Your task to perform on an android device: turn off picture-in-picture Image 0: 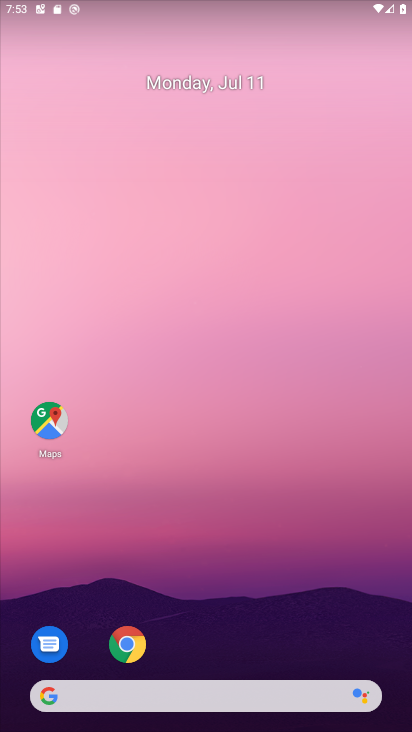
Step 0: drag from (272, 584) to (283, 269)
Your task to perform on an android device: turn off picture-in-picture Image 1: 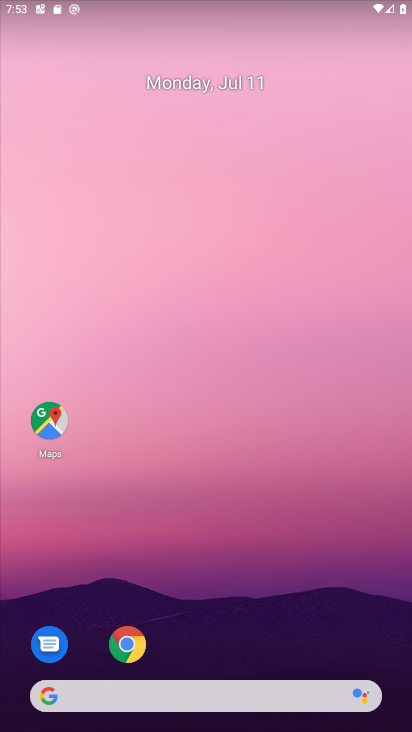
Step 1: drag from (268, 630) to (285, 533)
Your task to perform on an android device: turn off picture-in-picture Image 2: 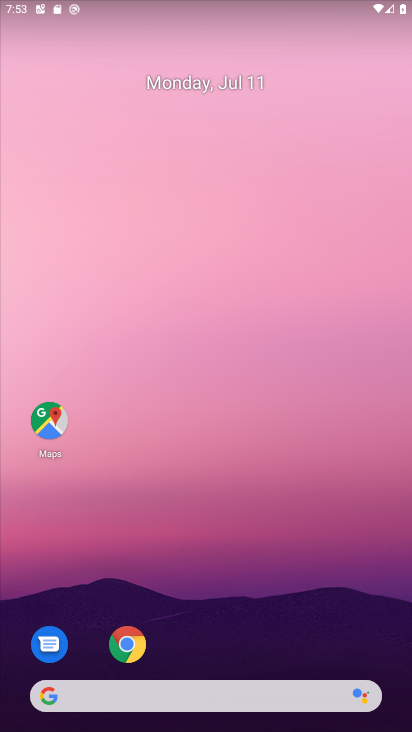
Step 2: drag from (215, 641) to (161, 72)
Your task to perform on an android device: turn off picture-in-picture Image 3: 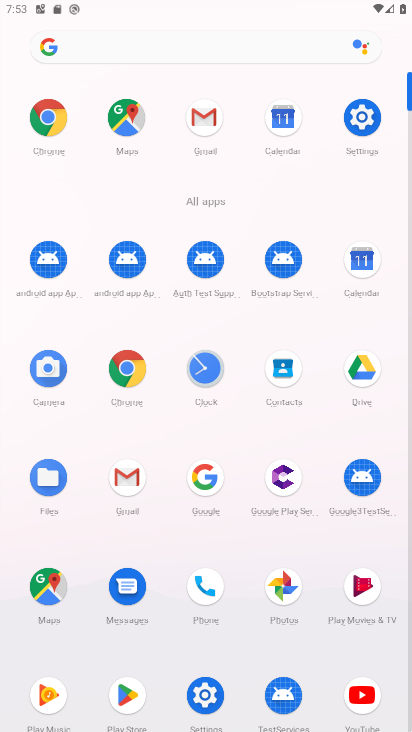
Step 3: click (369, 101)
Your task to perform on an android device: turn off picture-in-picture Image 4: 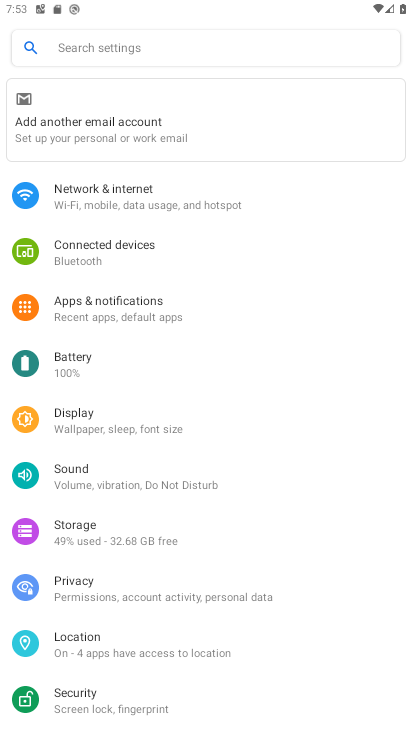
Step 4: click (76, 299)
Your task to perform on an android device: turn off picture-in-picture Image 5: 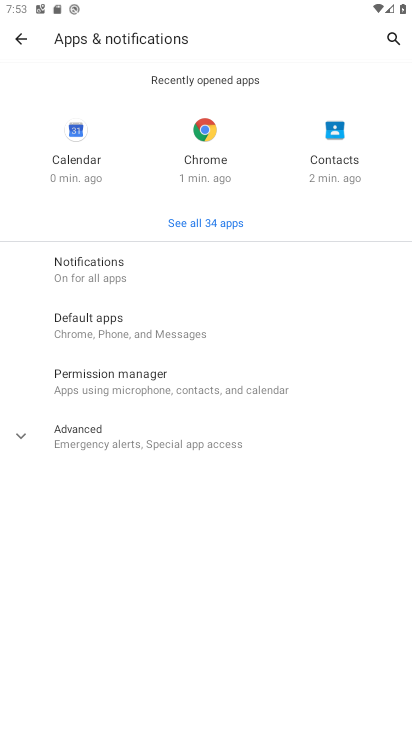
Step 5: click (127, 442)
Your task to perform on an android device: turn off picture-in-picture Image 6: 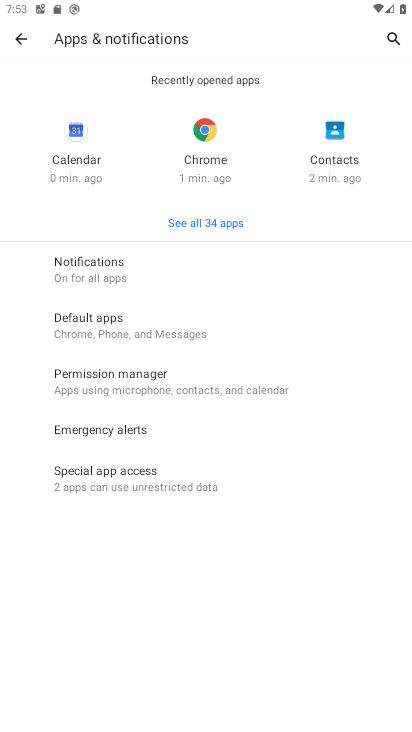
Step 6: click (119, 490)
Your task to perform on an android device: turn off picture-in-picture Image 7: 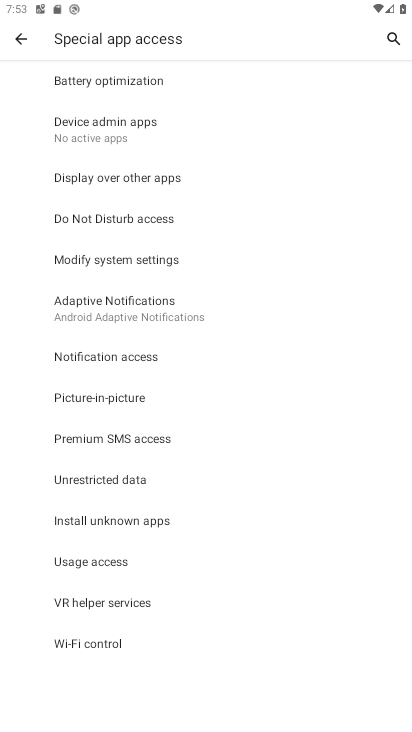
Step 7: click (121, 400)
Your task to perform on an android device: turn off picture-in-picture Image 8: 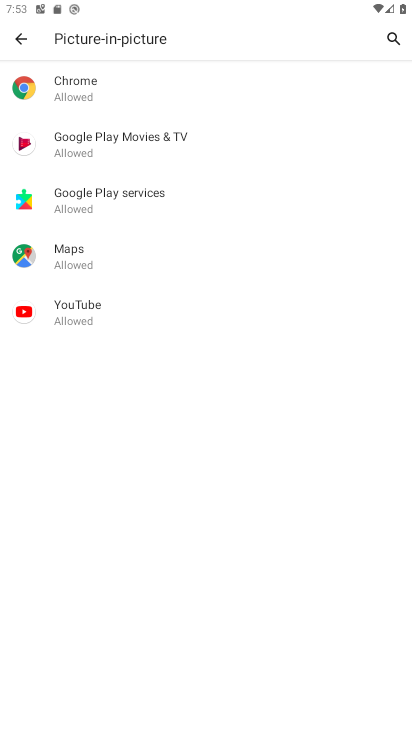
Step 8: click (114, 317)
Your task to perform on an android device: turn off picture-in-picture Image 9: 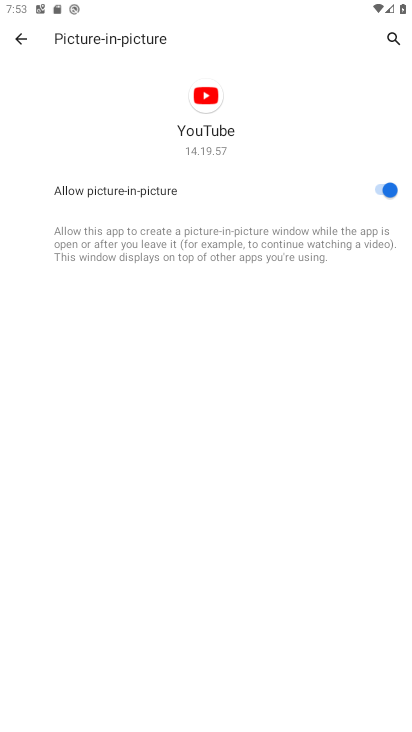
Step 9: click (373, 189)
Your task to perform on an android device: turn off picture-in-picture Image 10: 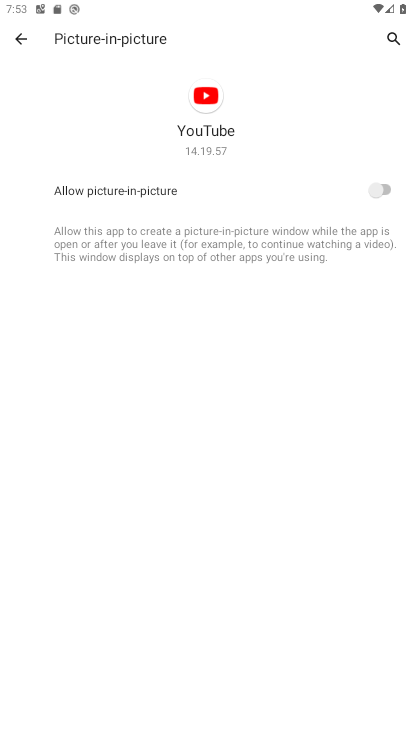
Step 10: task complete